Your task to perform on an android device: Go to ESPN.com Image 0: 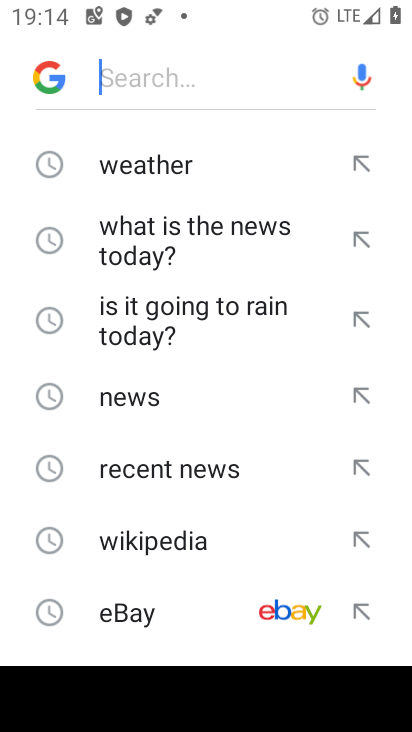
Step 0: press home button
Your task to perform on an android device: Go to ESPN.com Image 1: 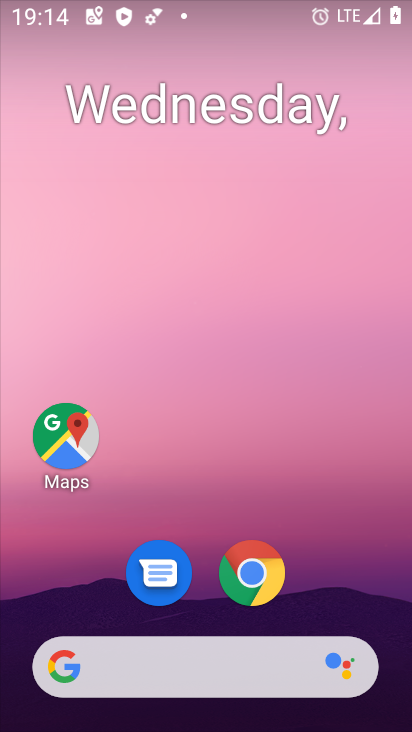
Step 1: click (247, 565)
Your task to perform on an android device: Go to ESPN.com Image 2: 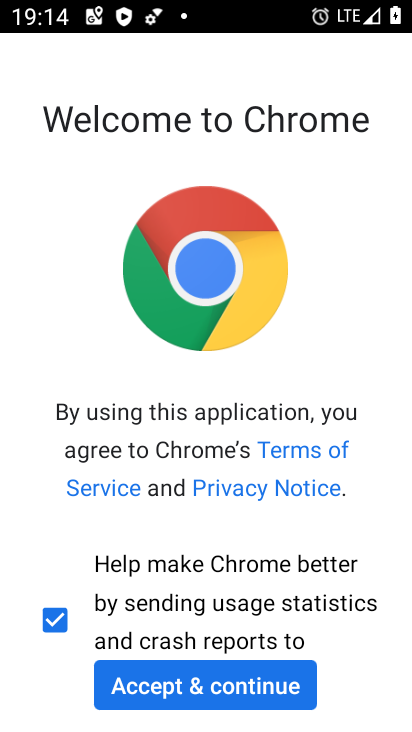
Step 2: click (248, 688)
Your task to perform on an android device: Go to ESPN.com Image 3: 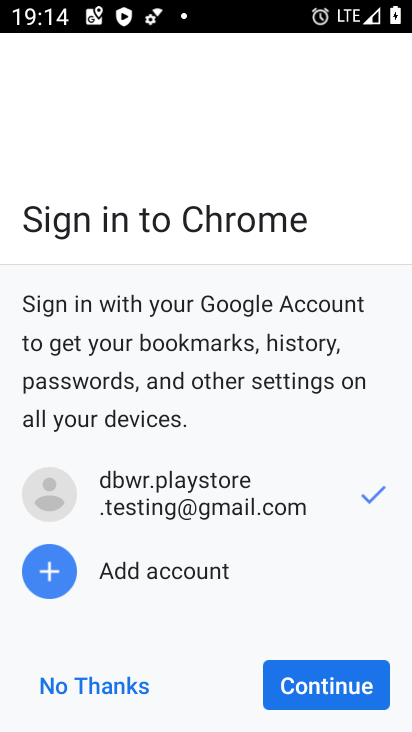
Step 3: click (291, 686)
Your task to perform on an android device: Go to ESPN.com Image 4: 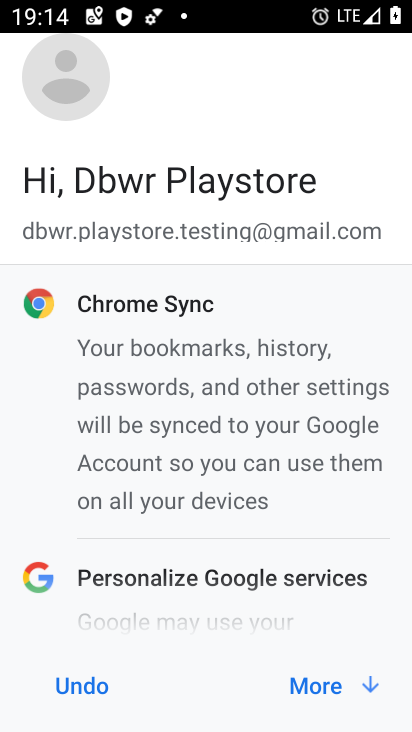
Step 4: click (291, 686)
Your task to perform on an android device: Go to ESPN.com Image 5: 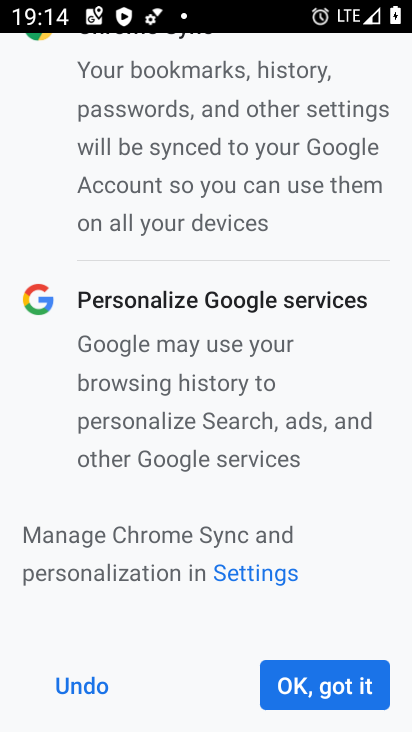
Step 5: click (303, 679)
Your task to perform on an android device: Go to ESPN.com Image 6: 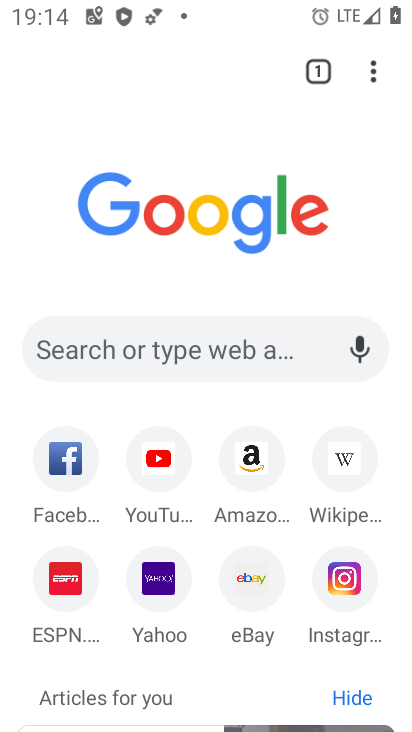
Step 6: click (52, 564)
Your task to perform on an android device: Go to ESPN.com Image 7: 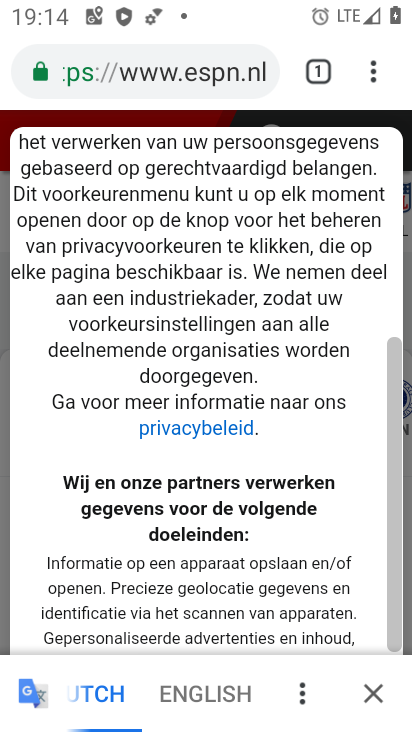
Step 7: task complete